Your task to perform on an android device: remove spam from my inbox in the gmail app Image 0: 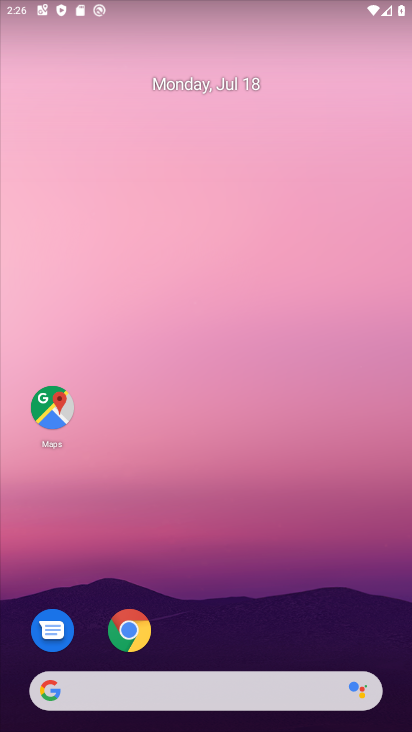
Step 0: drag from (380, 636) to (155, 6)
Your task to perform on an android device: remove spam from my inbox in the gmail app Image 1: 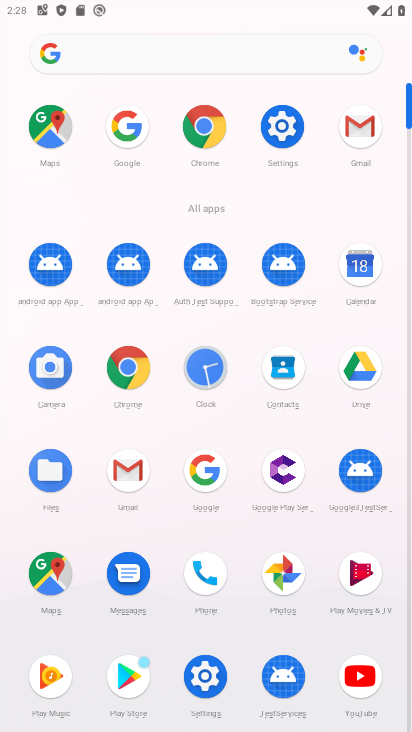
Step 1: click (127, 468)
Your task to perform on an android device: remove spam from my inbox in the gmail app Image 2: 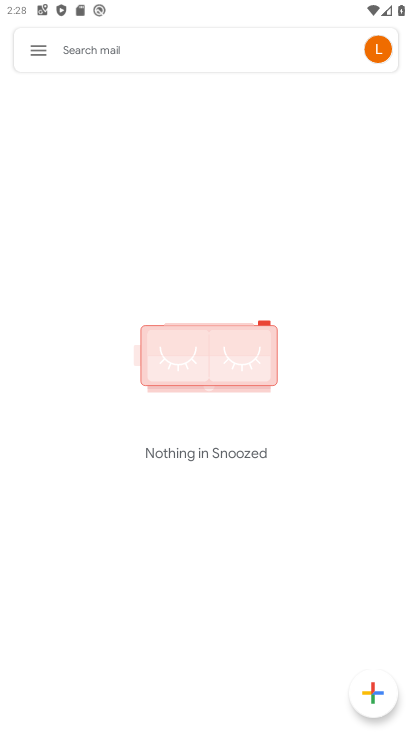
Step 2: click (46, 53)
Your task to perform on an android device: remove spam from my inbox in the gmail app Image 3: 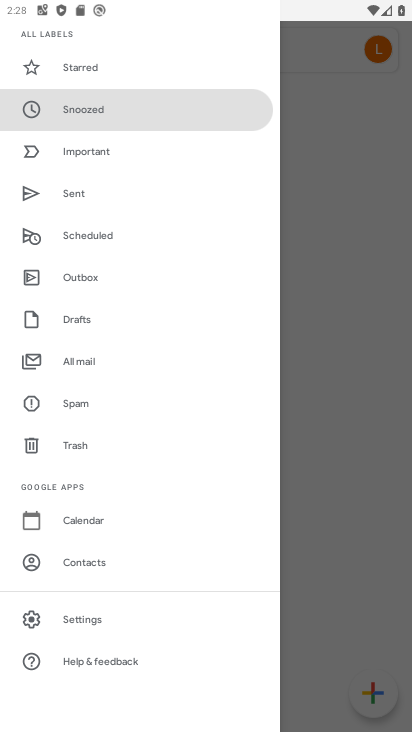
Step 3: click (60, 405)
Your task to perform on an android device: remove spam from my inbox in the gmail app Image 4: 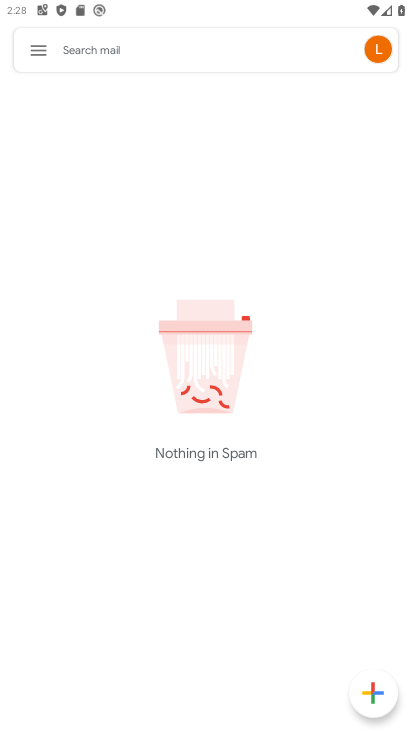
Step 4: task complete